Your task to perform on an android device: Empty the shopping cart on bestbuy. Search for "usb-c" on bestbuy, select the first entry, add it to the cart, then select checkout. Image 0: 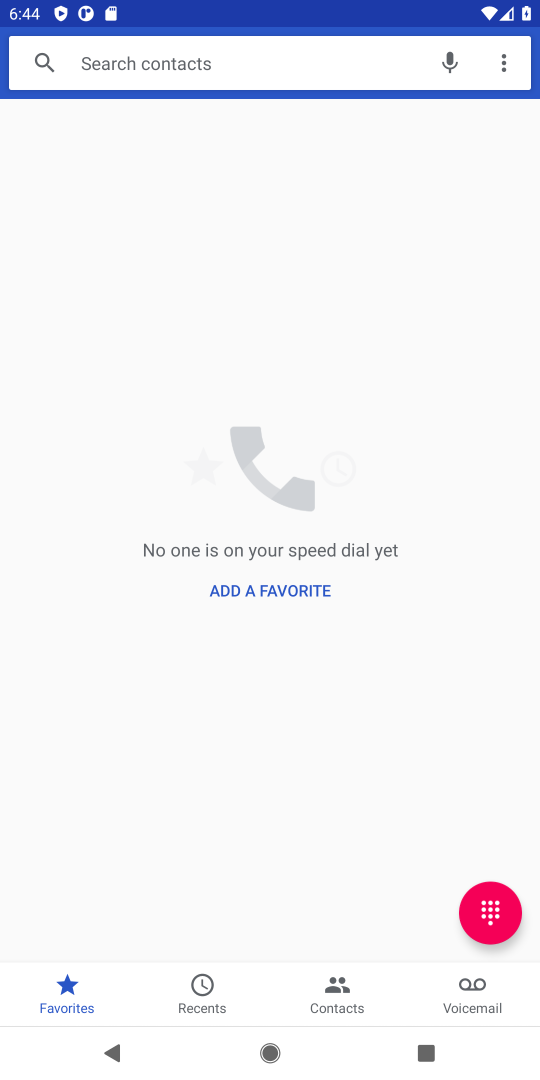
Step 0: press home button
Your task to perform on an android device: Empty the shopping cart on bestbuy. Search for "usb-c" on bestbuy, select the first entry, add it to the cart, then select checkout. Image 1: 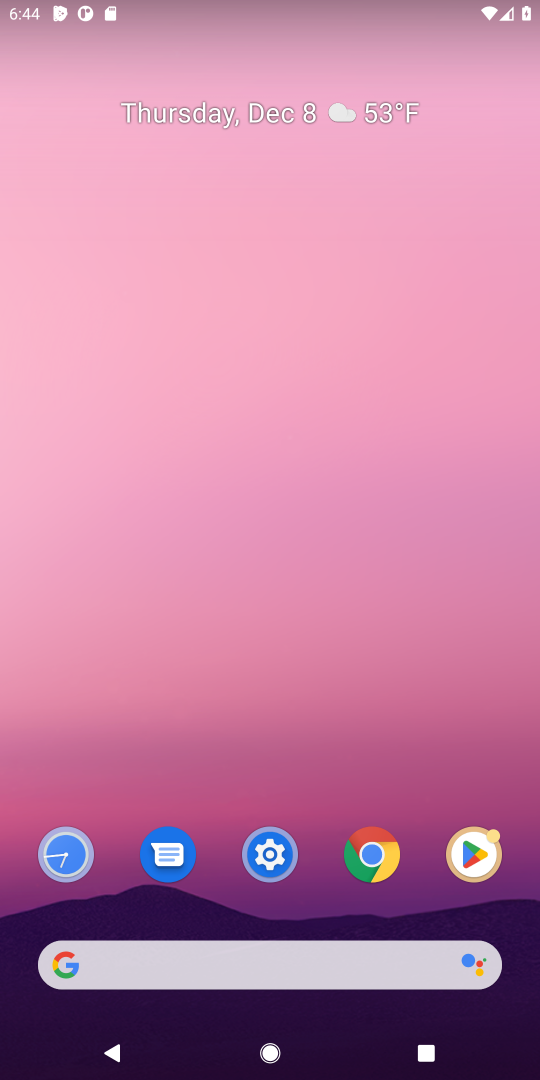
Step 1: click (104, 961)
Your task to perform on an android device: Empty the shopping cart on bestbuy. Search for "usb-c" on bestbuy, select the first entry, add it to the cart, then select checkout. Image 2: 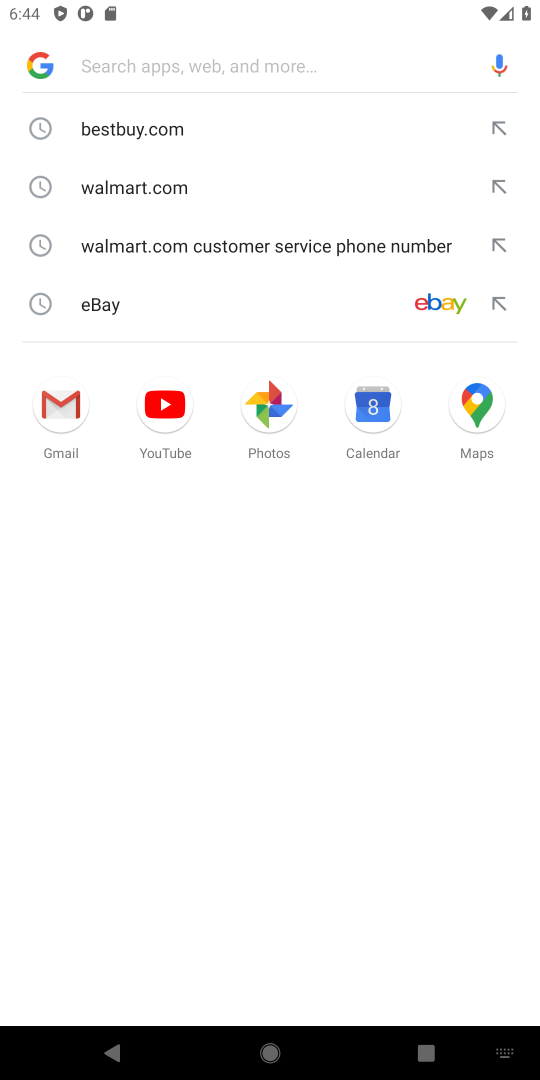
Step 2: type "bestbuy"
Your task to perform on an android device: Empty the shopping cart on bestbuy. Search for "usb-c" on bestbuy, select the first entry, add it to the cart, then select checkout. Image 3: 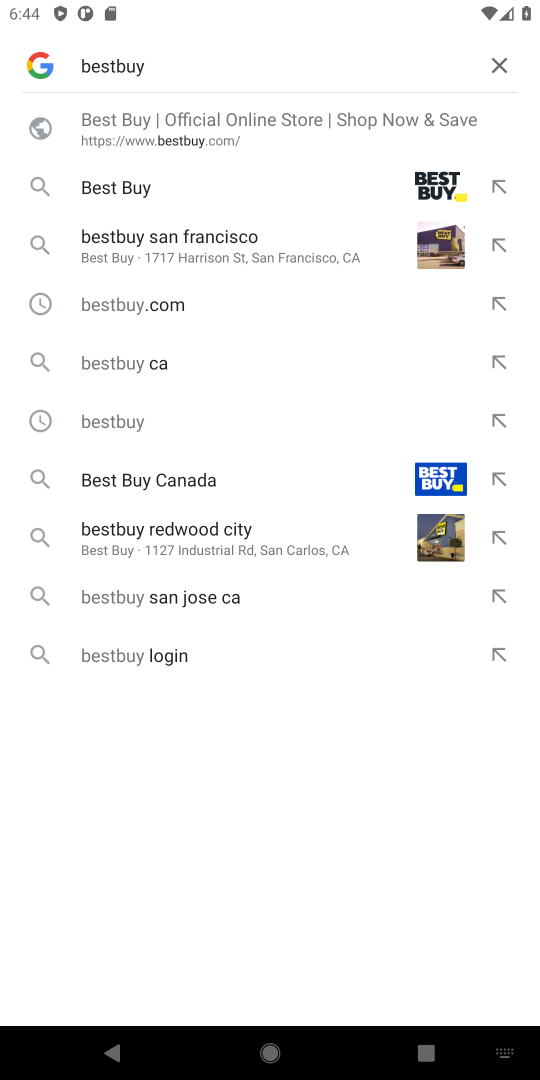
Step 3: press enter
Your task to perform on an android device: Empty the shopping cart on bestbuy. Search for "usb-c" on bestbuy, select the first entry, add it to the cart, then select checkout. Image 4: 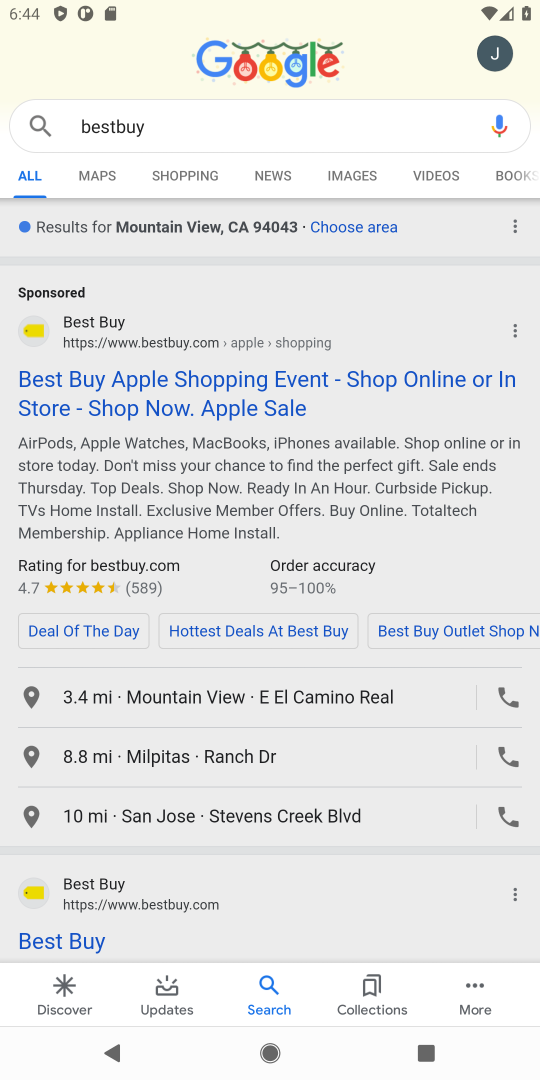
Step 4: click (143, 390)
Your task to perform on an android device: Empty the shopping cart on bestbuy. Search for "usb-c" on bestbuy, select the first entry, add it to the cart, then select checkout. Image 5: 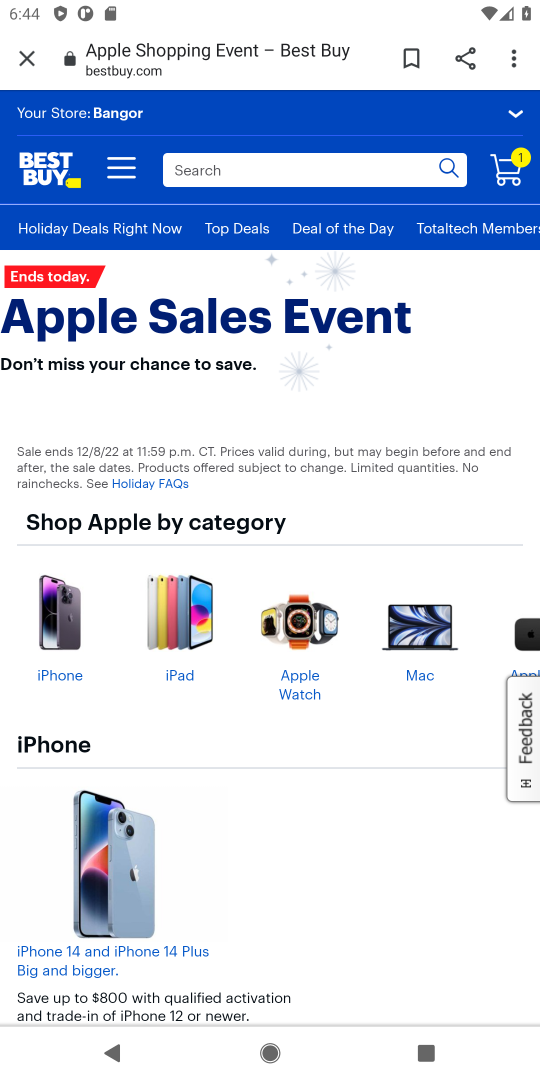
Step 5: click (188, 160)
Your task to perform on an android device: Empty the shopping cart on bestbuy. Search for "usb-c" on bestbuy, select the first entry, add it to the cart, then select checkout. Image 6: 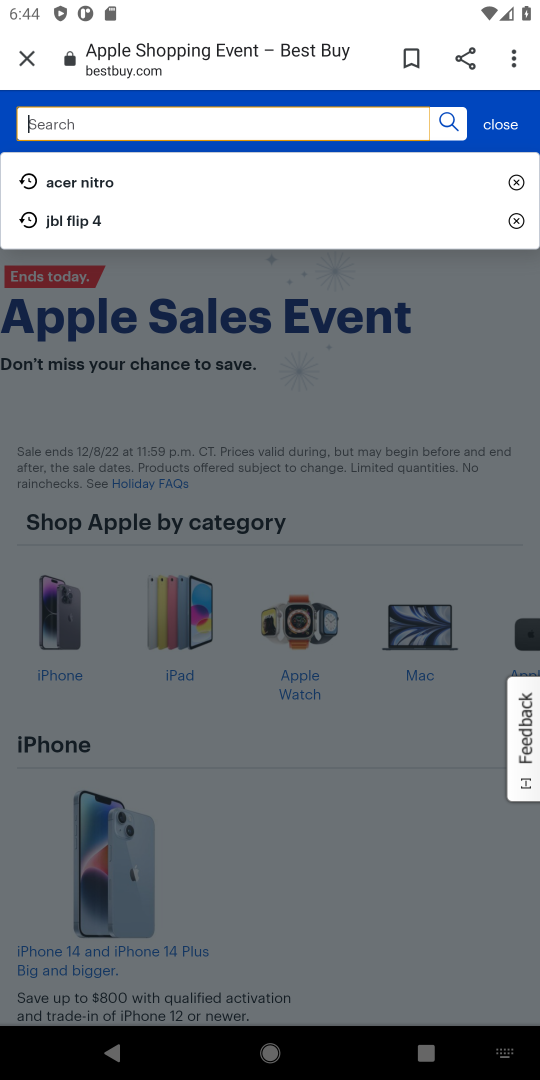
Step 6: type "usb-c"
Your task to perform on an android device: Empty the shopping cart on bestbuy. Search for "usb-c" on bestbuy, select the first entry, add it to the cart, then select checkout. Image 7: 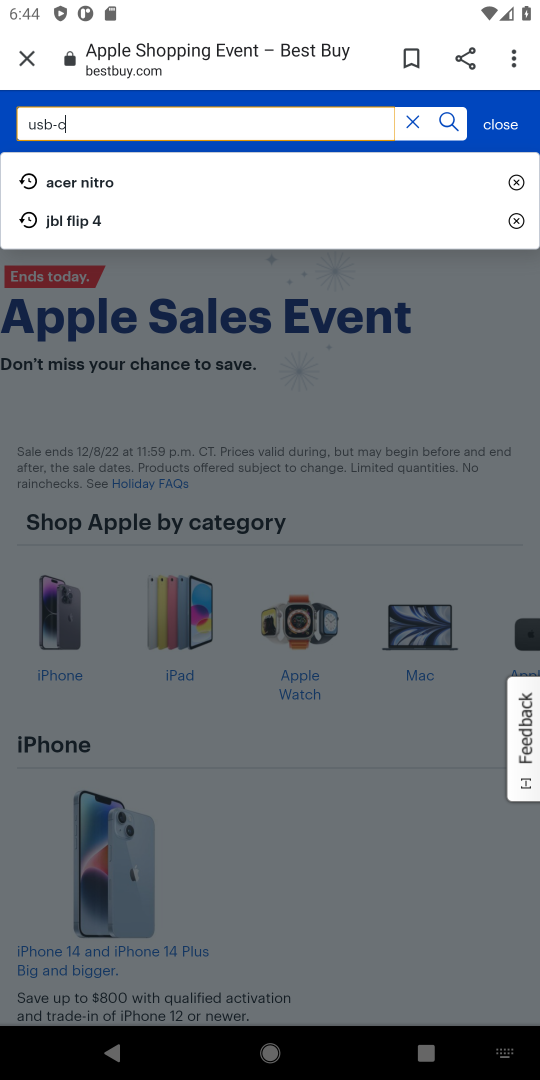
Step 7: press enter
Your task to perform on an android device: Empty the shopping cart on bestbuy. Search for "usb-c" on bestbuy, select the first entry, add it to the cart, then select checkout. Image 8: 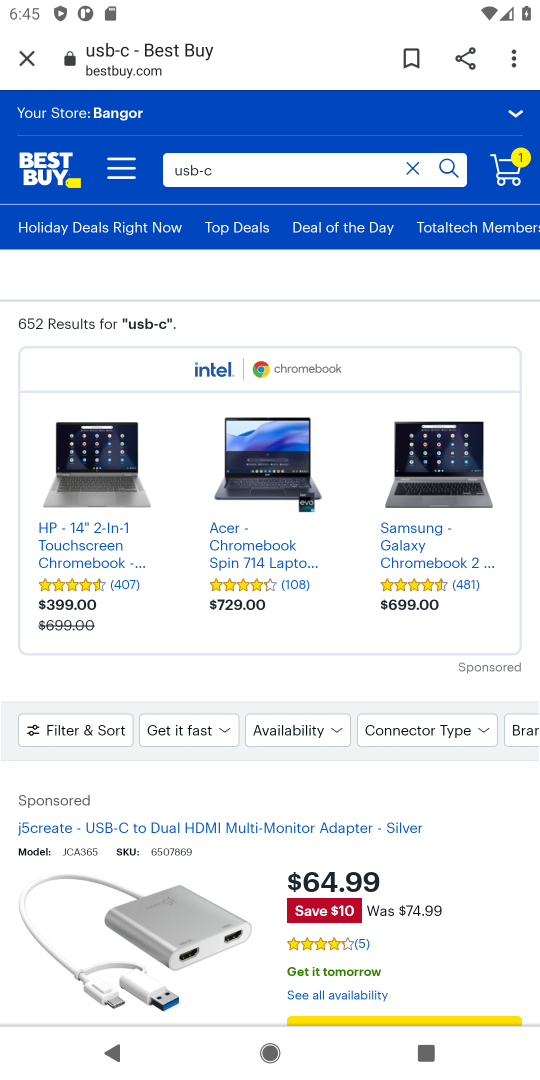
Step 8: drag from (230, 868) to (292, 512)
Your task to perform on an android device: Empty the shopping cart on bestbuy. Search for "usb-c" on bestbuy, select the first entry, add it to the cart, then select checkout. Image 9: 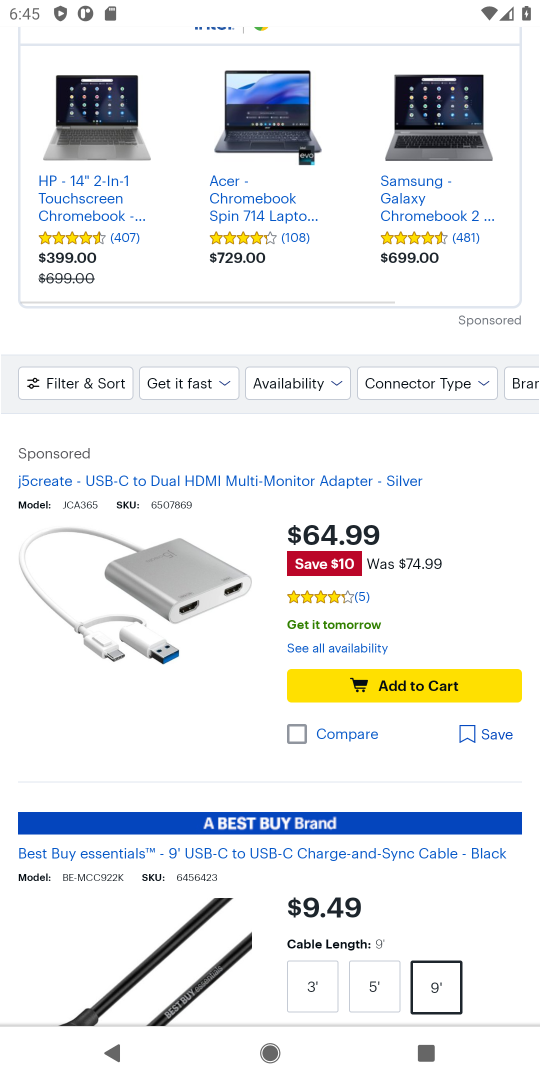
Step 9: click (404, 673)
Your task to perform on an android device: Empty the shopping cart on bestbuy. Search for "usb-c" on bestbuy, select the first entry, add it to the cart, then select checkout. Image 10: 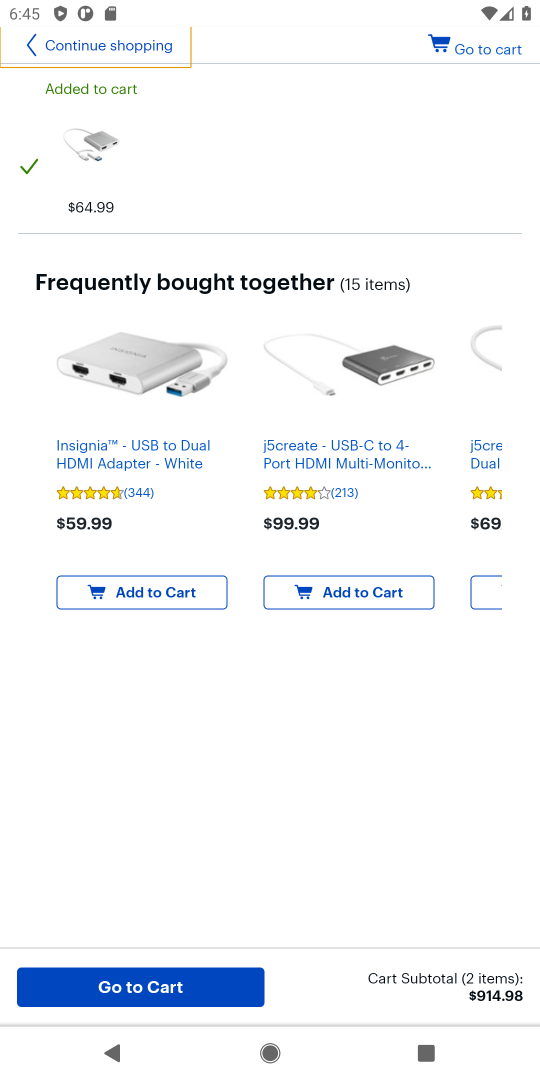
Step 10: task complete